Your task to perform on an android device: check google app version Image 0: 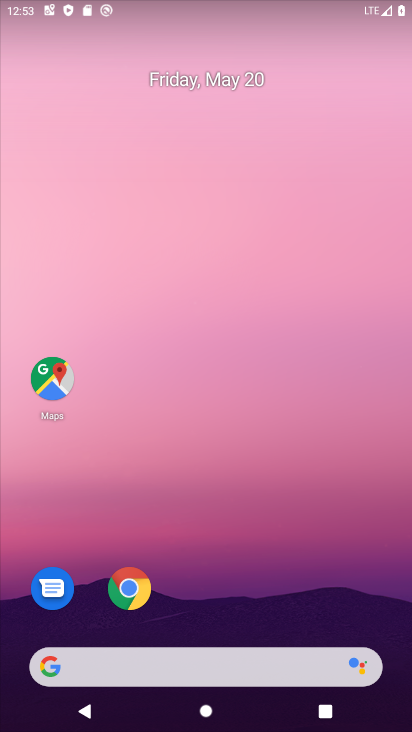
Step 0: click (132, 587)
Your task to perform on an android device: check google app version Image 1: 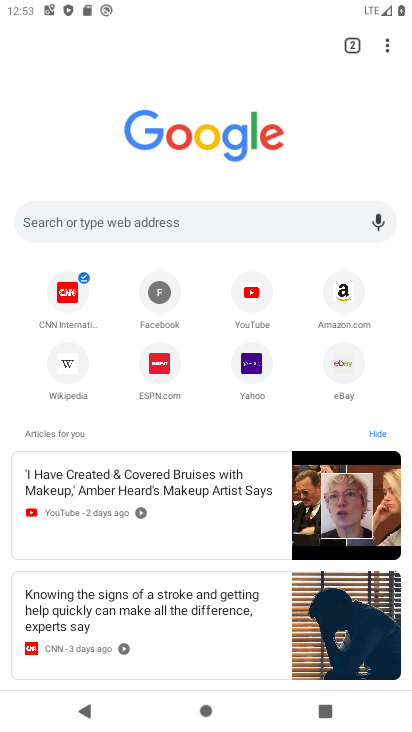
Step 1: click (385, 49)
Your task to perform on an android device: check google app version Image 2: 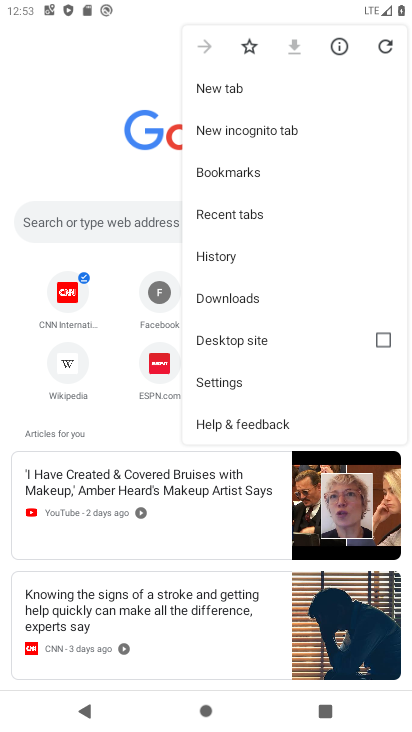
Step 2: click (230, 380)
Your task to perform on an android device: check google app version Image 3: 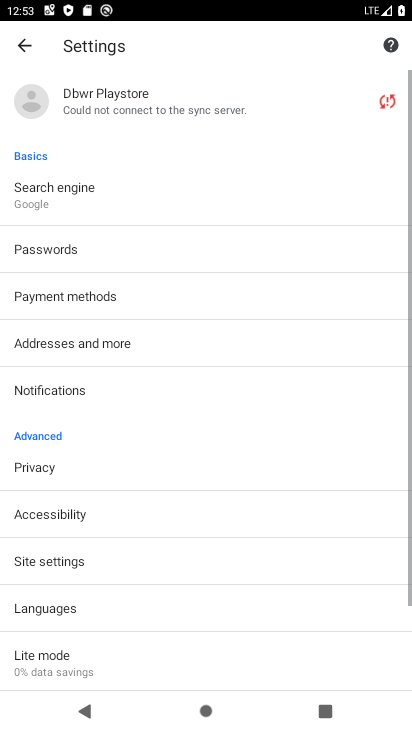
Step 3: drag from (128, 651) to (156, 142)
Your task to perform on an android device: check google app version Image 4: 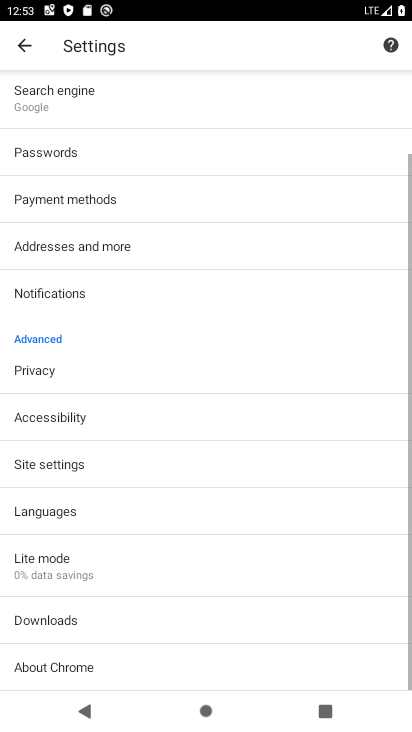
Step 4: click (69, 677)
Your task to perform on an android device: check google app version Image 5: 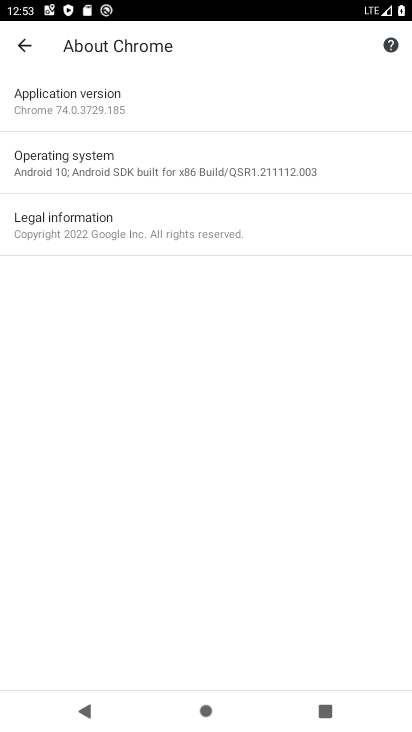
Step 5: task complete